Your task to perform on an android device: Search for Italian restaurants on Maps Image 0: 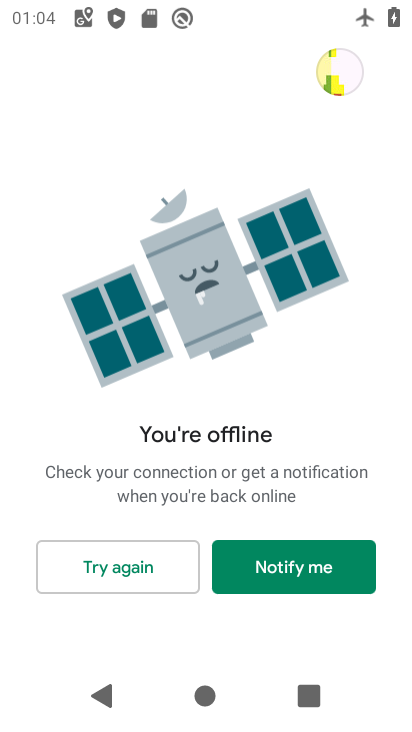
Step 0: press home button
Your task to perform on an android device: Search for Italian restaurants on Maps Image 1: 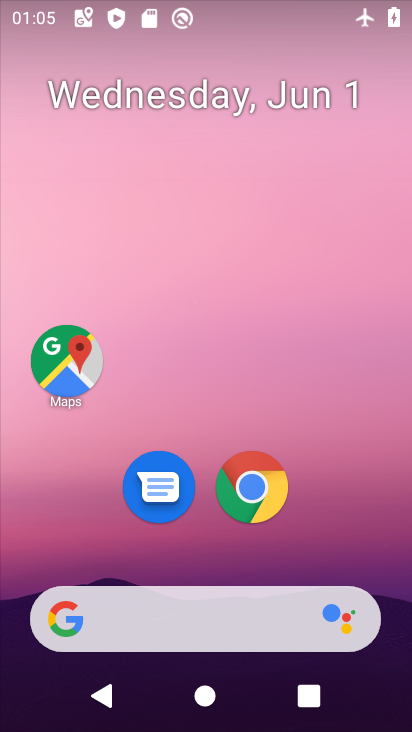
Step 1: drag from (203, 518) to (216, 256)
Your task to perform on an android device: Search for Italian restaurants on Maps Image 2: 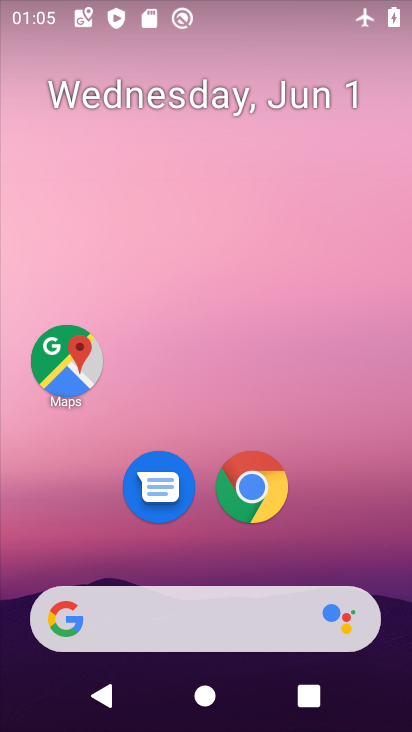
Step 2: drag from (204, 572) to (205, 221)
Your task to perform on an android device: Search for Italian restaurants on Maps Image 3: 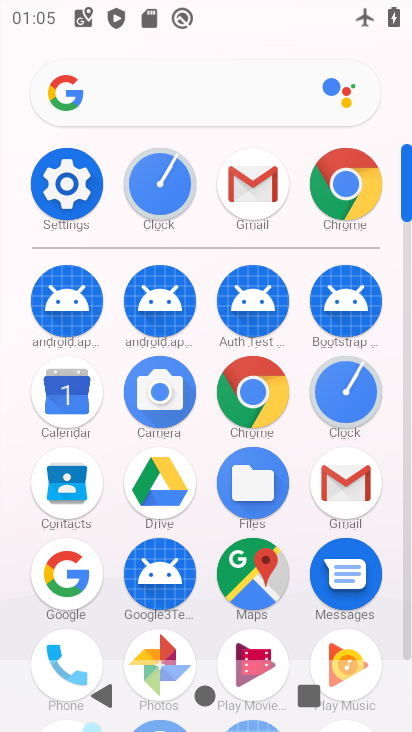
Step 3: click (256, 564)
Your task to perform on an android device: Search for Italian restaurants on Maps Image 4: 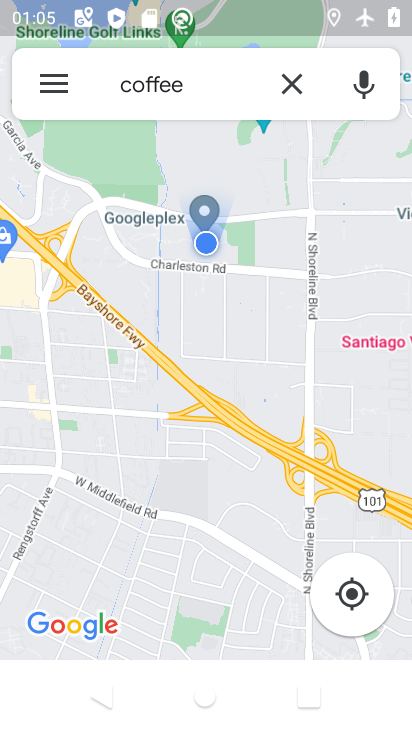
Step 4: click (291, 81)
Your task to perform on an android device: Search for Italian restaurants on Maps Image 5: 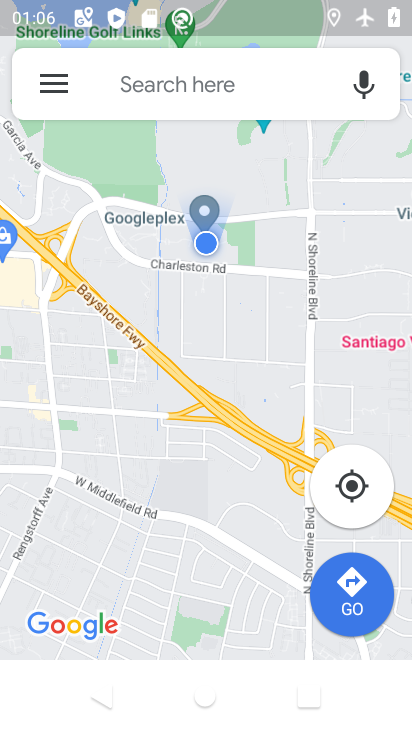
Step 5: click (207, 68)
Your task to perform on an android device: Search for Italian restaurants on Maps Image 6: 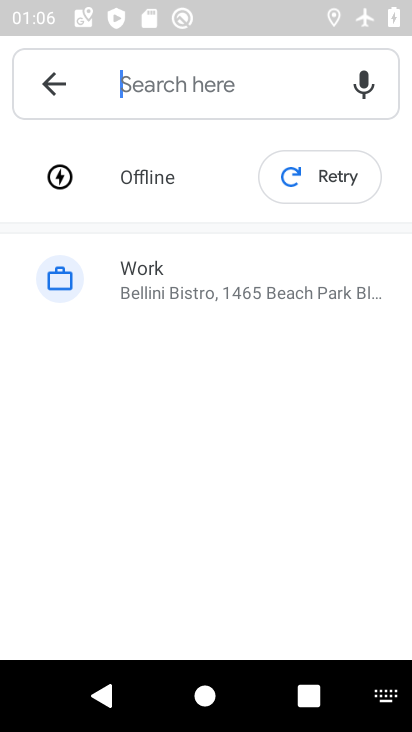
Step 6: click (220, 71)
Your task to perform on an android device: Search for Italian restaurants on Maps Image 7: 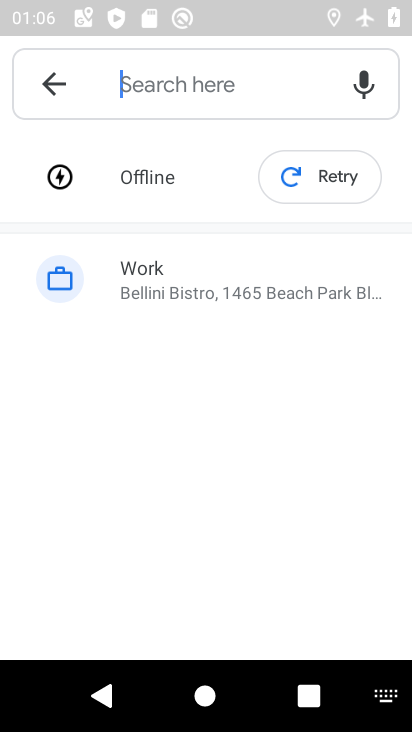
Step 7: type " Italian restaurants "
Your task to perform on an android device: Search for Italian restaurants on Maps Image 8: 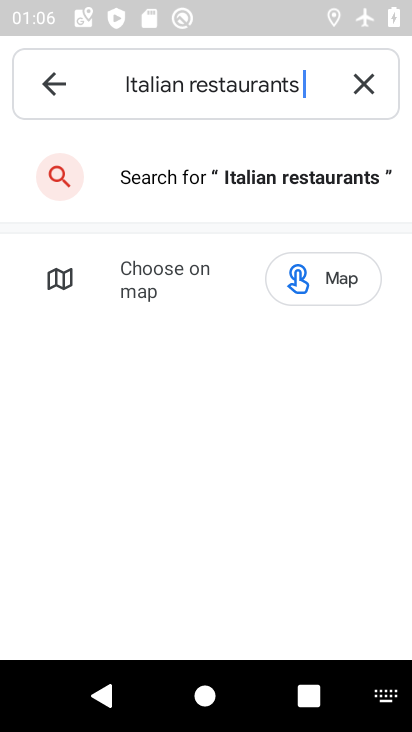
Step 8: click (259, 181)
Your task to perform on an android device: Search for Italian restaurants on Maps Image 9: 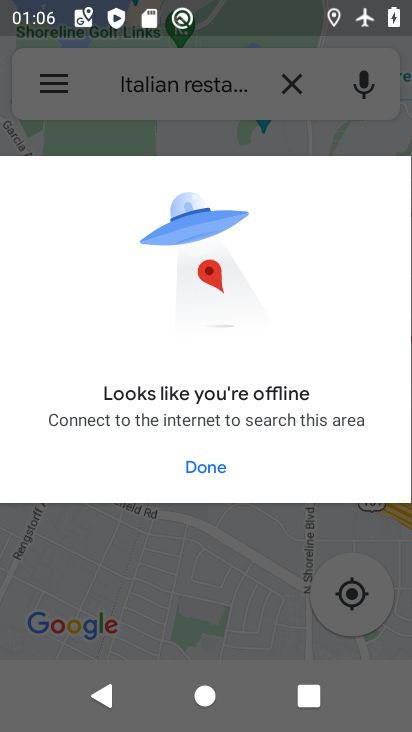
Step 9: click (207, 465)
Your task to perform on an android device: Search for Italian restaurants on Maps Image 10: 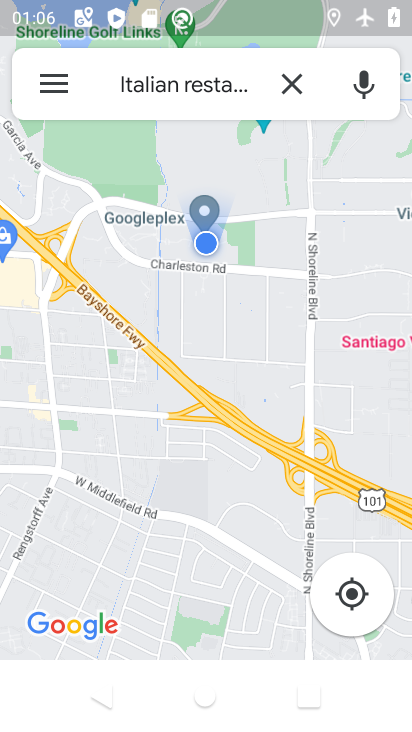
Step 10: task complete